Your task to perform on an android device: turn off smart reply in the gmail app Image 0: 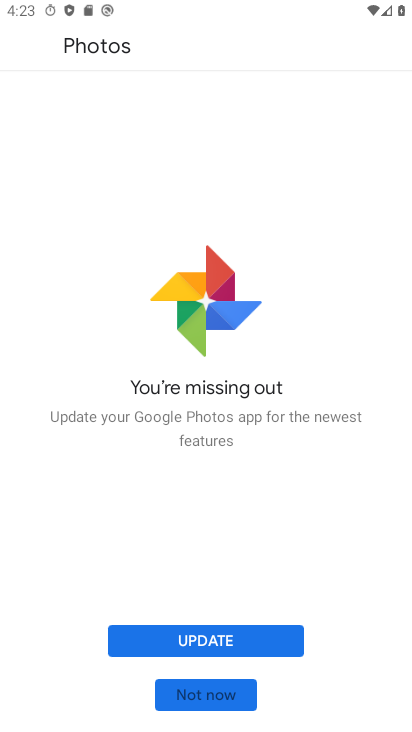
Step 0: press home button
Your task to perform on an android device: turn off smart reply in the gmail app Image 1: 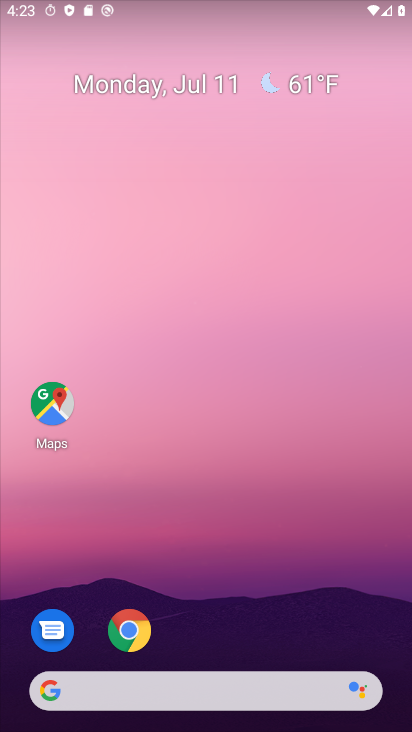
Step 1: drag from (349, 616) to (253, 5)
Your task to perform on an android device: turn off smart reply in the gmail app Image 2: 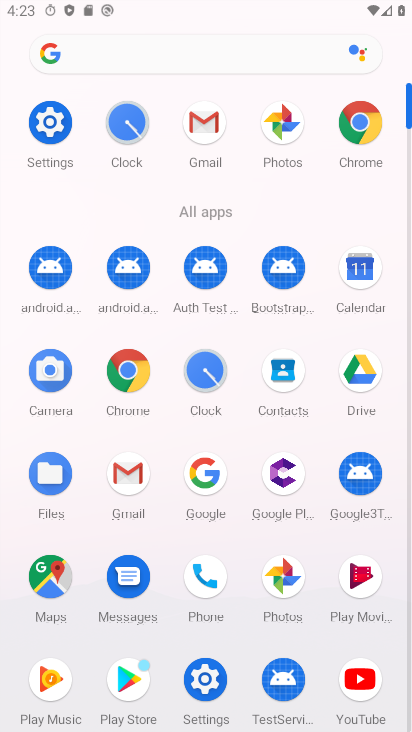
Step 2: click (213, 151)
Your task to perform on an android device: turn off smart reply in the gmail app Image 3: 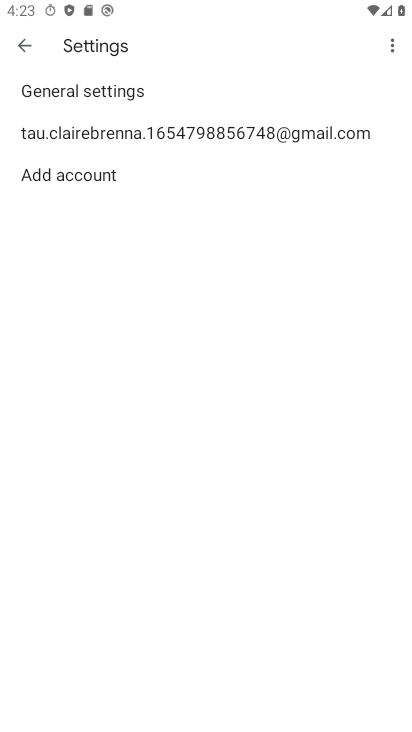
Step 3: click (55, 136)
Your task to perform on an android device: turn off smart reply in the gmail app Image 4: 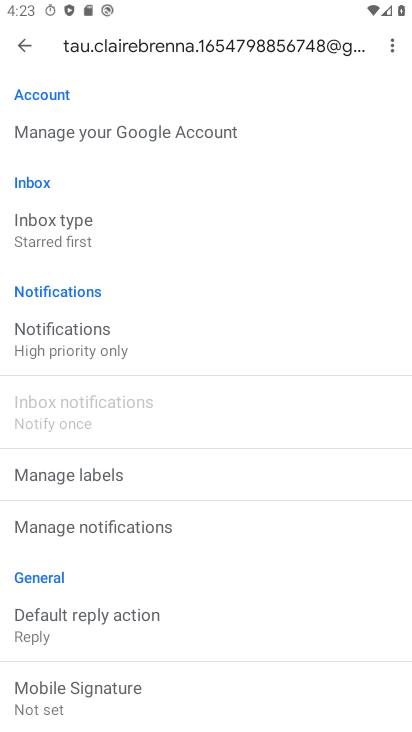
Step 4: drag from (101, 608) to (177, 184)
Your task to perform on an android device: turn off smart reply in the gmail app Image 5: 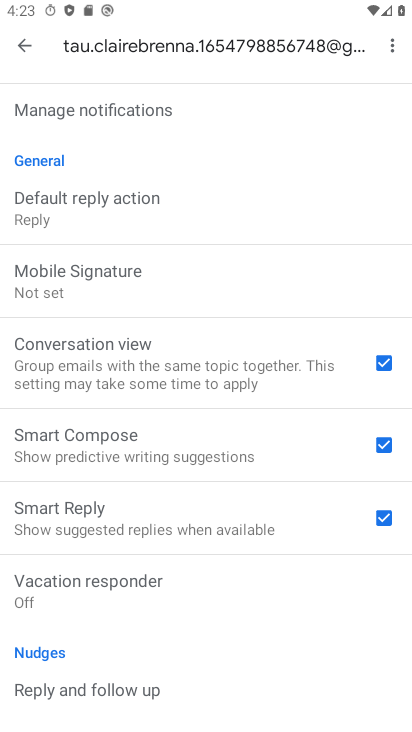
Step 5: drag from (144, 588) to (164, 106)
Your task to perform on an android device: turn off smart reply in the gmail app Image 6: 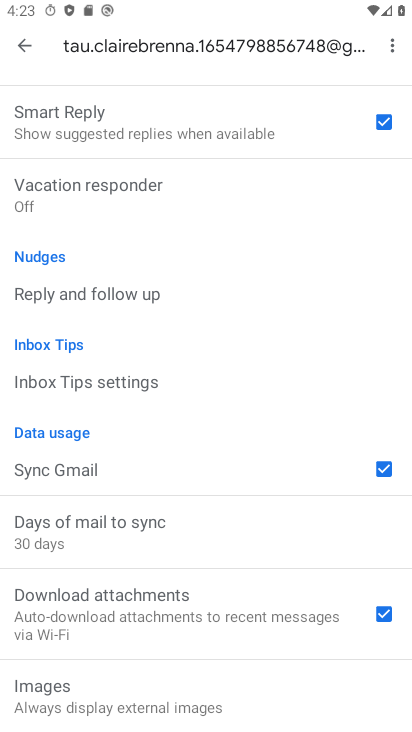
Step 6: drag from (98, 643) to (124, 157)
Your task to perform on an android device: turn off smart reply in the gmail app Image 7: 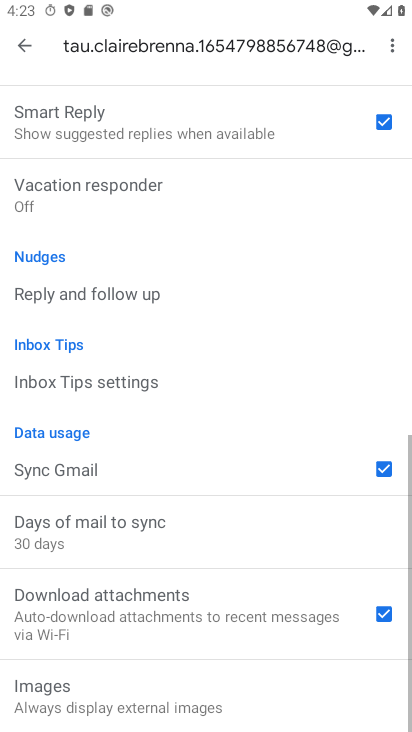
Step 7: drag from (128, 158) to (130, 599)
Your task to perform on an android device: turn off smart reply in the gmail app Image 8: 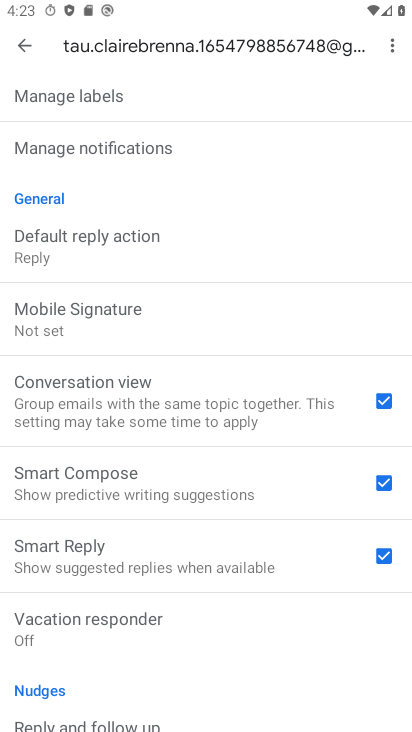
Step 8: click (387, 558)
Your task to perform on an android device: turn off smart reply in the gmail app Image 9: 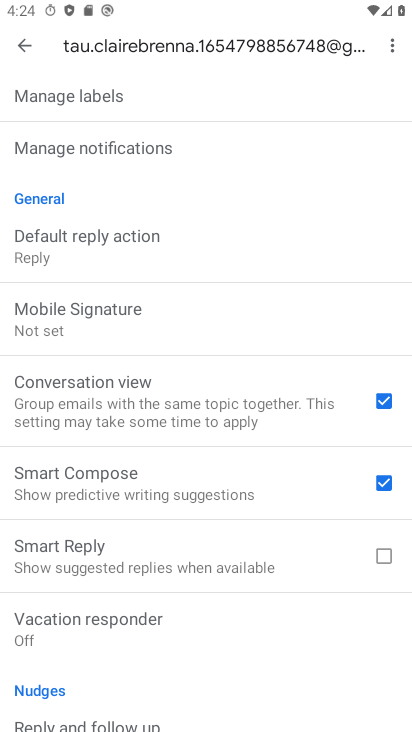
Step 9: task complete